Your task to perform on an android device: toggle sleep mode Image 0: 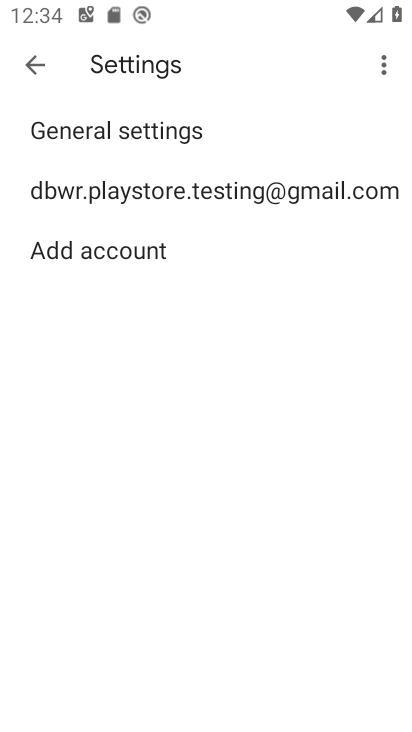
Step 0: press home button
Your task to perform on an android device: toggle sleep mode Image 1: 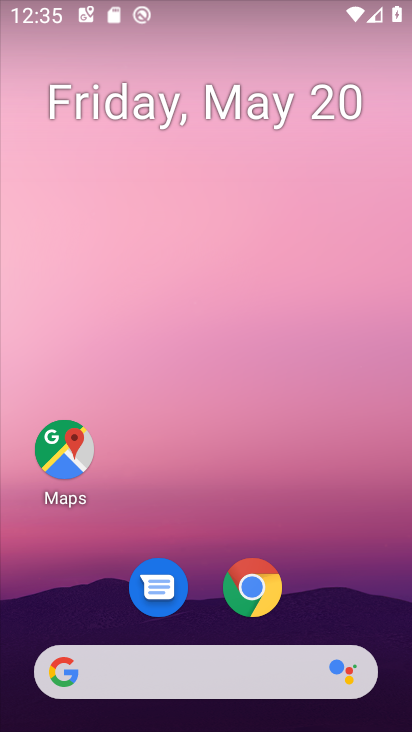
Step 1: drag from (336, 599) to (341, 254)
Your task to perform on an android device: toggle sleep mode Image 2: 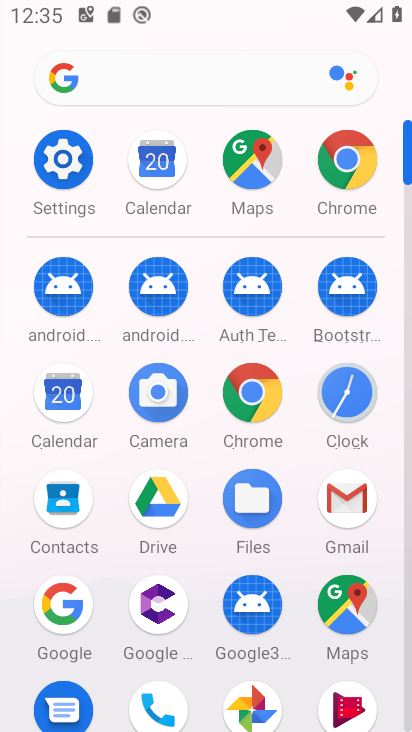
Step 2: click (70, 181)
Your task to perform on an android device: toggle sleep mode Image 3: 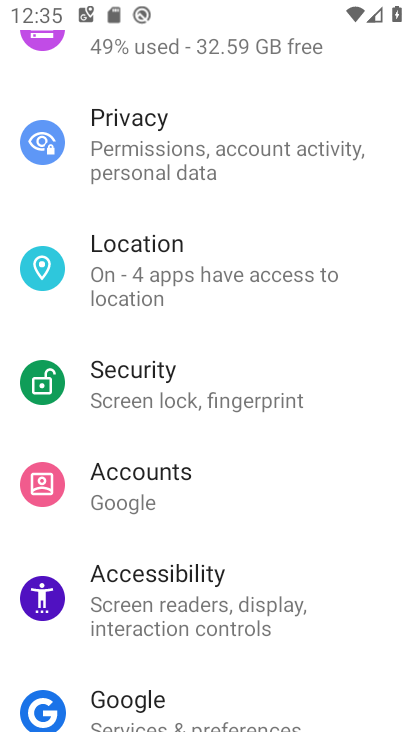
Step 3: drag from (348, 231) to (335, 357)
Your task to perform on an android device: toggle sleep mode Image 4: 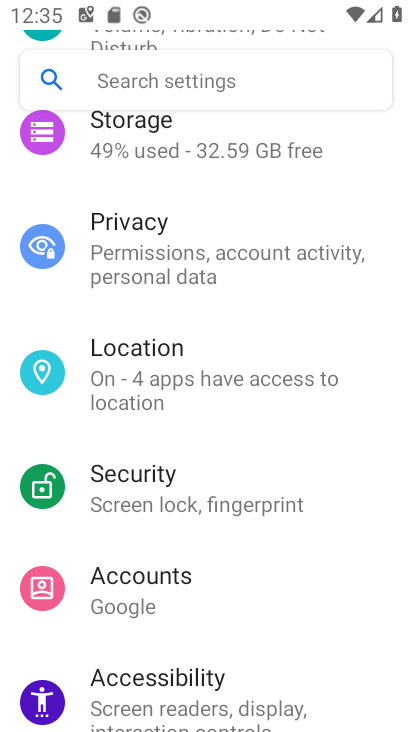
Step 4: drag from (357, 209) to (357, 347)
Your task to perform on an android device: toggle sleep mode Image 5: 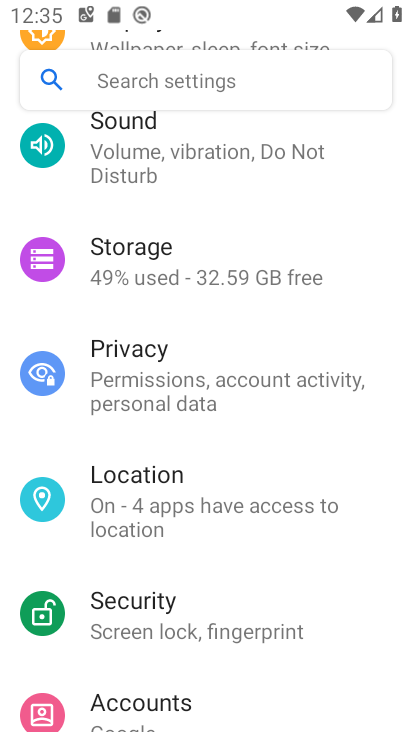
Step 5: drag from (361, 186) to (361, 286)
Your task to perform on an android device: toggle sleep mode Image 6: 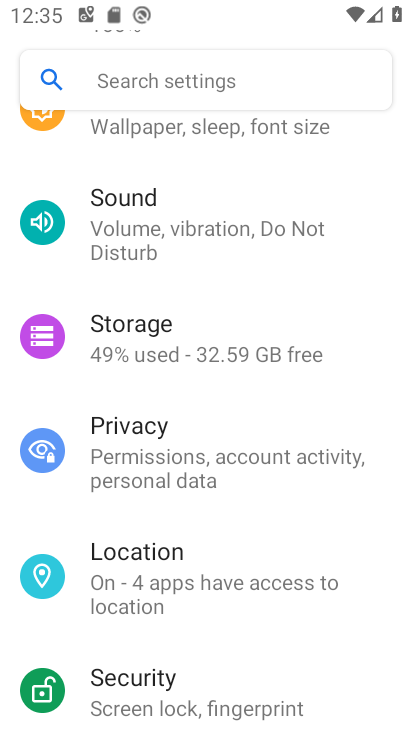
Step 6: drag from (361, 177) to (354, 282)
Your task to perform on an android device: toggle sleep mode Image 7: 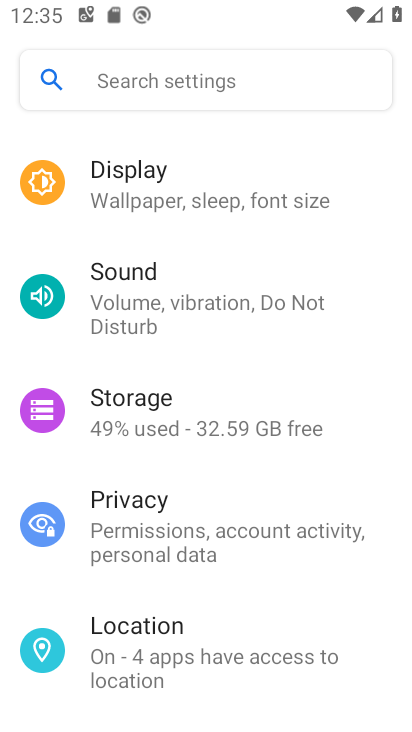
Step 7: drag from (354, 169) to (355, 282)
Your task to perform on an android device: toggle sleep mode Image 8: 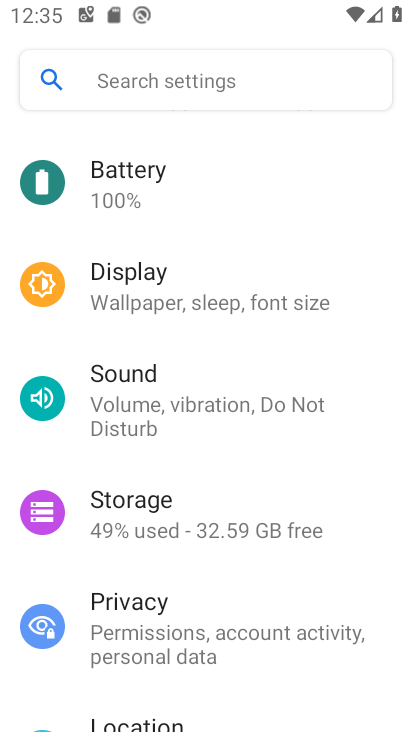
Step 8: drag from (355, 208) to (355, 314)
Your task to perform on an android device: toggle sleep mode Image 9: 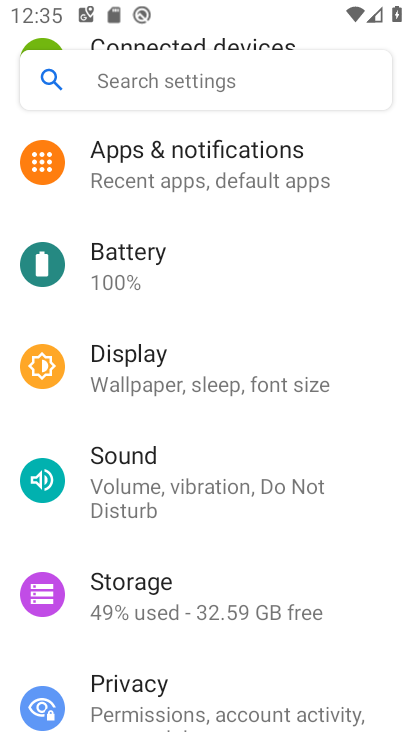
Step 9: drag from (369, 240) to (371, 290)
Your task to perform on an android device: toggle sleep mode Image 10: 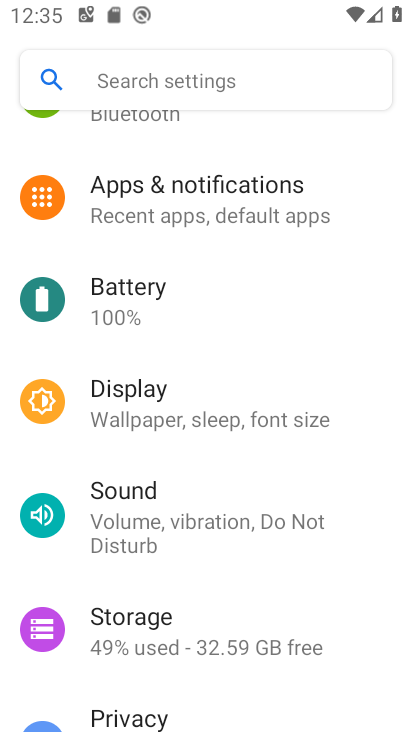
Step 10: drag from (370, 178) to (355, 280)
Your task to perform on an android device: toggle sleep mode Image 11: 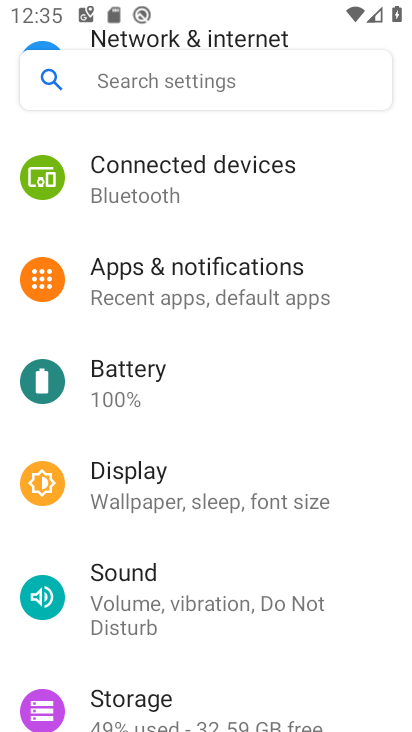
Step 11: drag from (350, 183) to (340, 254)
Your task to perform on an android device: toggle sleep mode Image 12: 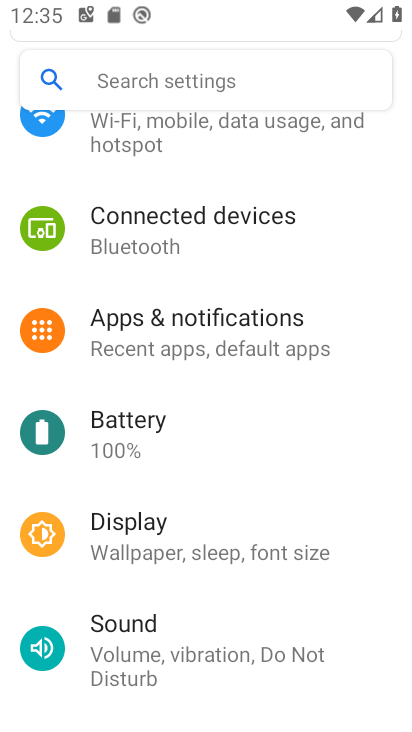
Step 12: drag from (343, 236) to (340, 352)
Your task to perform on an android device: toggle sleep mode Image 13: 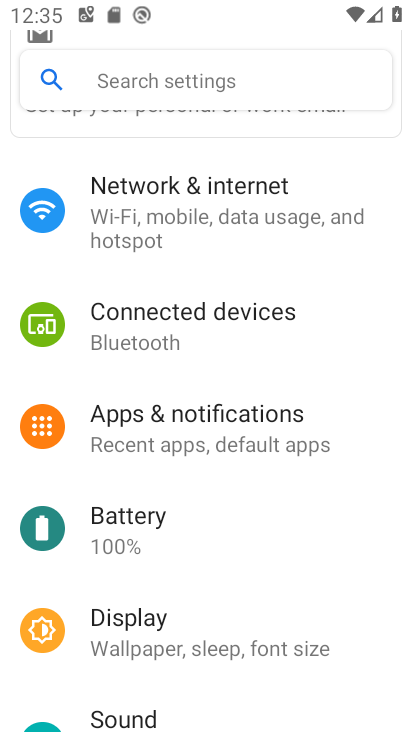
Step 13: drag from (342, 381) to (346, 285)
Your task to perform on an android device: toggle sleep mode Image 14: 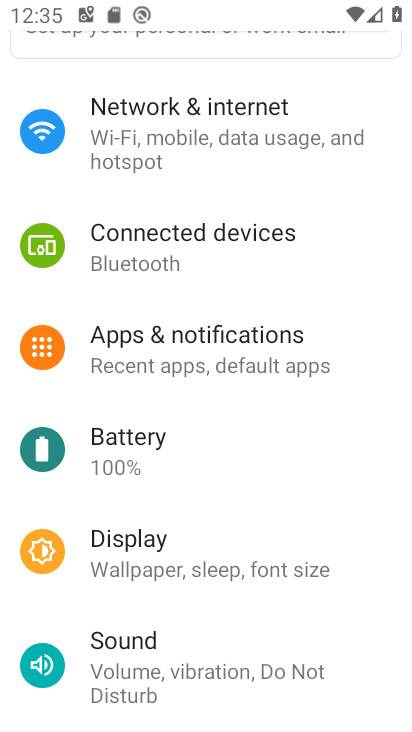
Step 14: drag from (346, 424) to (351, 354)
Your task to perform on an android device: toggle sleep mode Image 15: 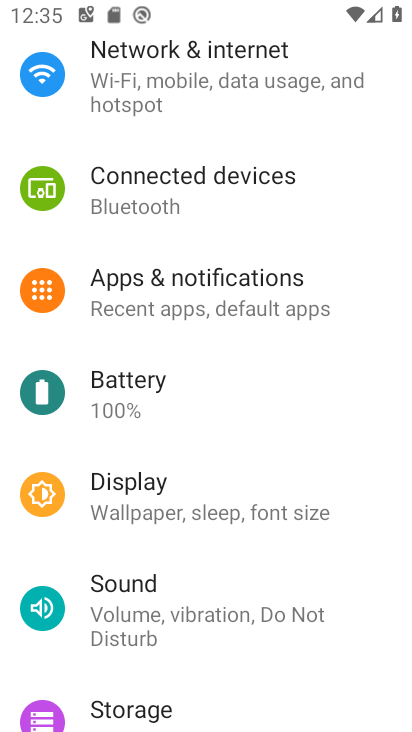
Step 15: drag from (348, 428) to (356, 336)
Your task to perform on an android device: toggle sleep mode Image 16: 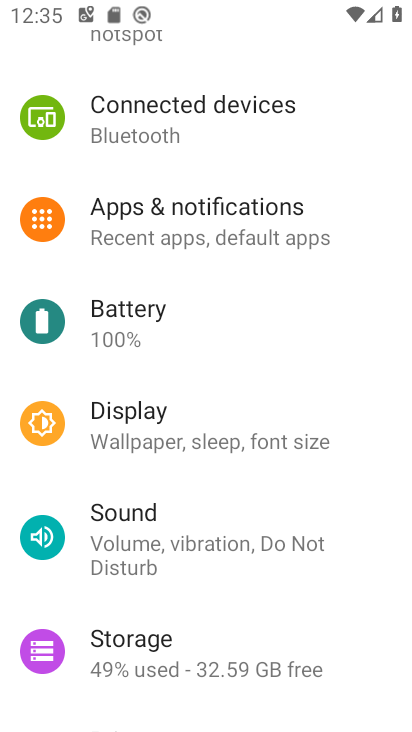
Step 16: drag from (356, 417) to (359, 328)
Your task to perform on an android device: toggle sleep mode Image 17: 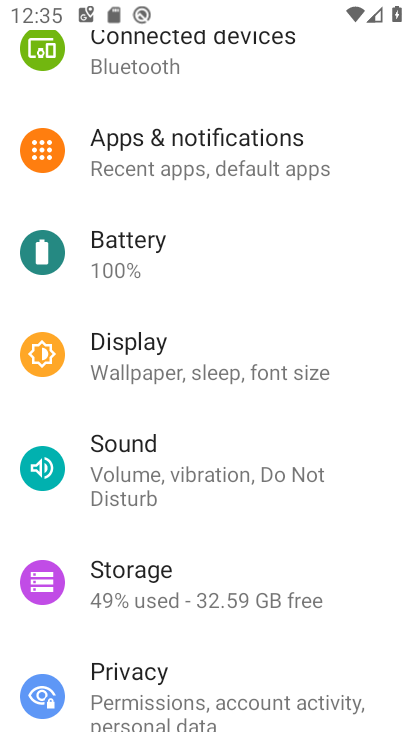
Step 17: drag from (359, 429) to (359, 354)
Your task to perform on an android device: toggle sleep mode Image 18: 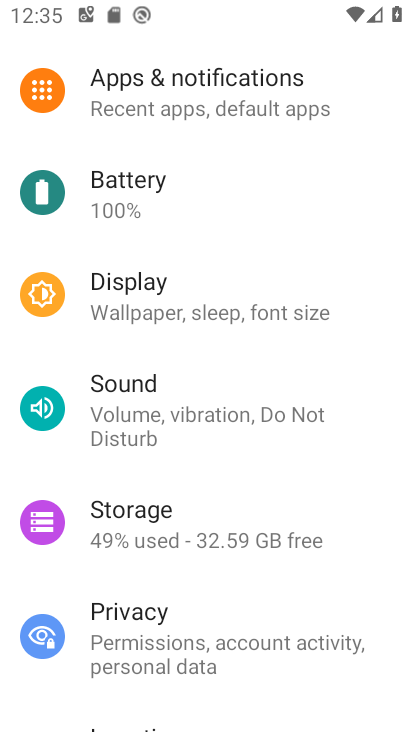
Step 18: click (311, 311)
Your task to perform on an android device: toggle sleep mode Image 19: 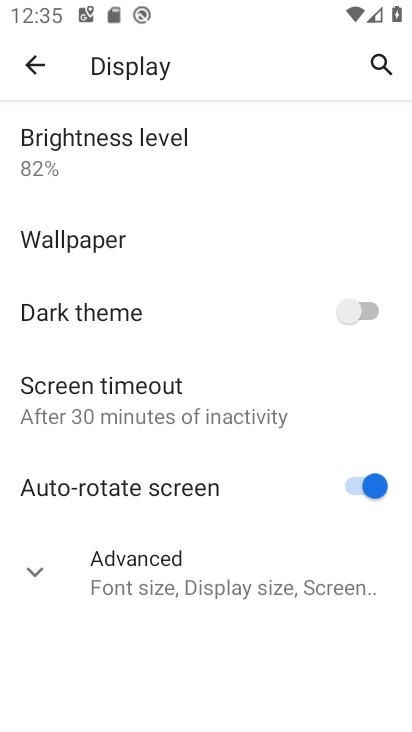
Step 19: task complete